Your task to perform on an android device: What's the weather? Image 0: 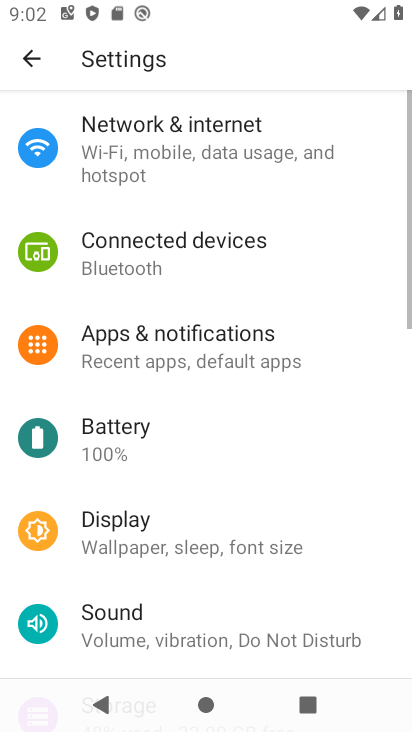
Step 0: press home button
Your task to perform on an android device: What's the weather? Image 1: 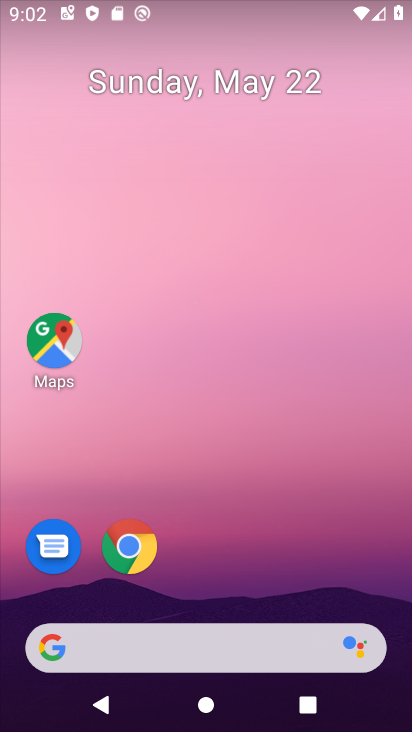
Step 1: click (183, 646)
Your task to perform on an android device: What's the weather? Image 2: 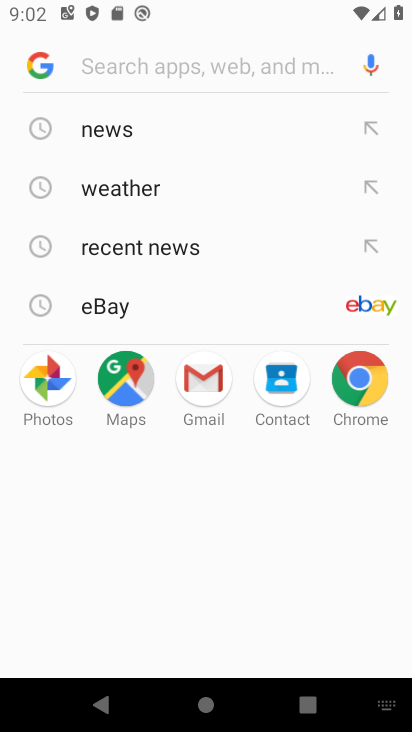
Step 2: click (94, 183)
Your task to perform on an android device: What's the weather? Image 3: 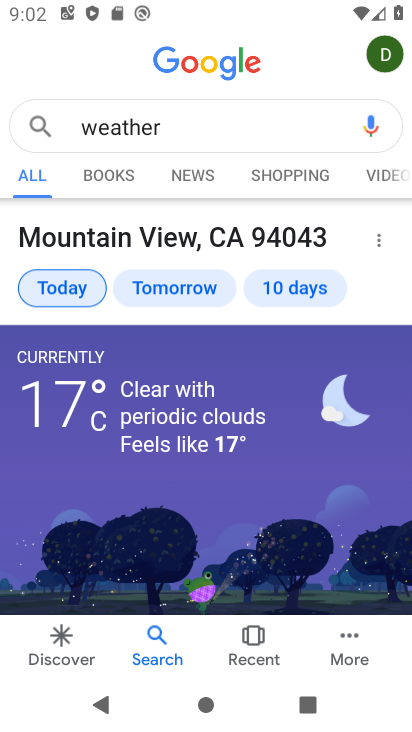
Step 3: task complete